Your task to perform on an android device: Search for macbook pro 13 inch on amazon, select the first entry, and add it to the cart. Image 0: 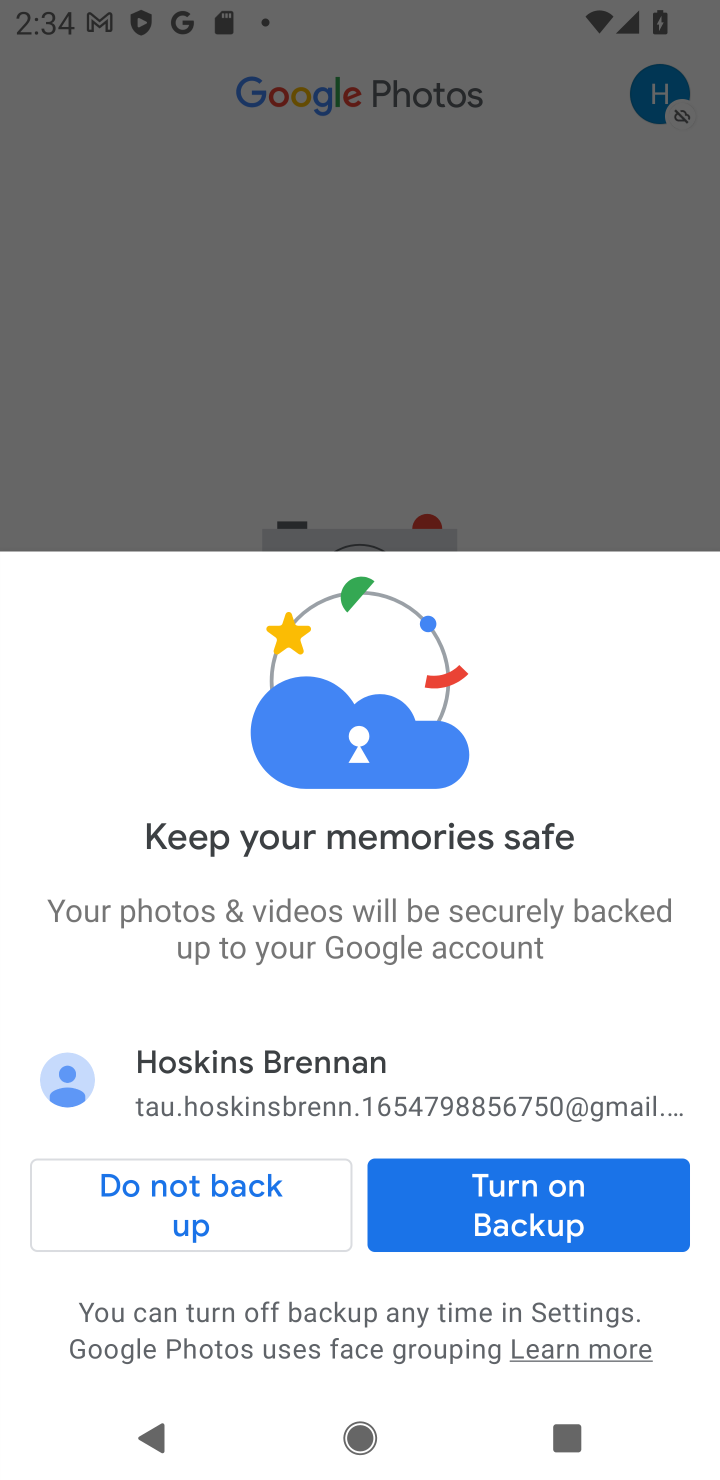
Step 0: press home button
Your task to perform on an android device: Search for macbook pro 13 inch on amazon, select the first entry, and add it to the cart. Image 1: 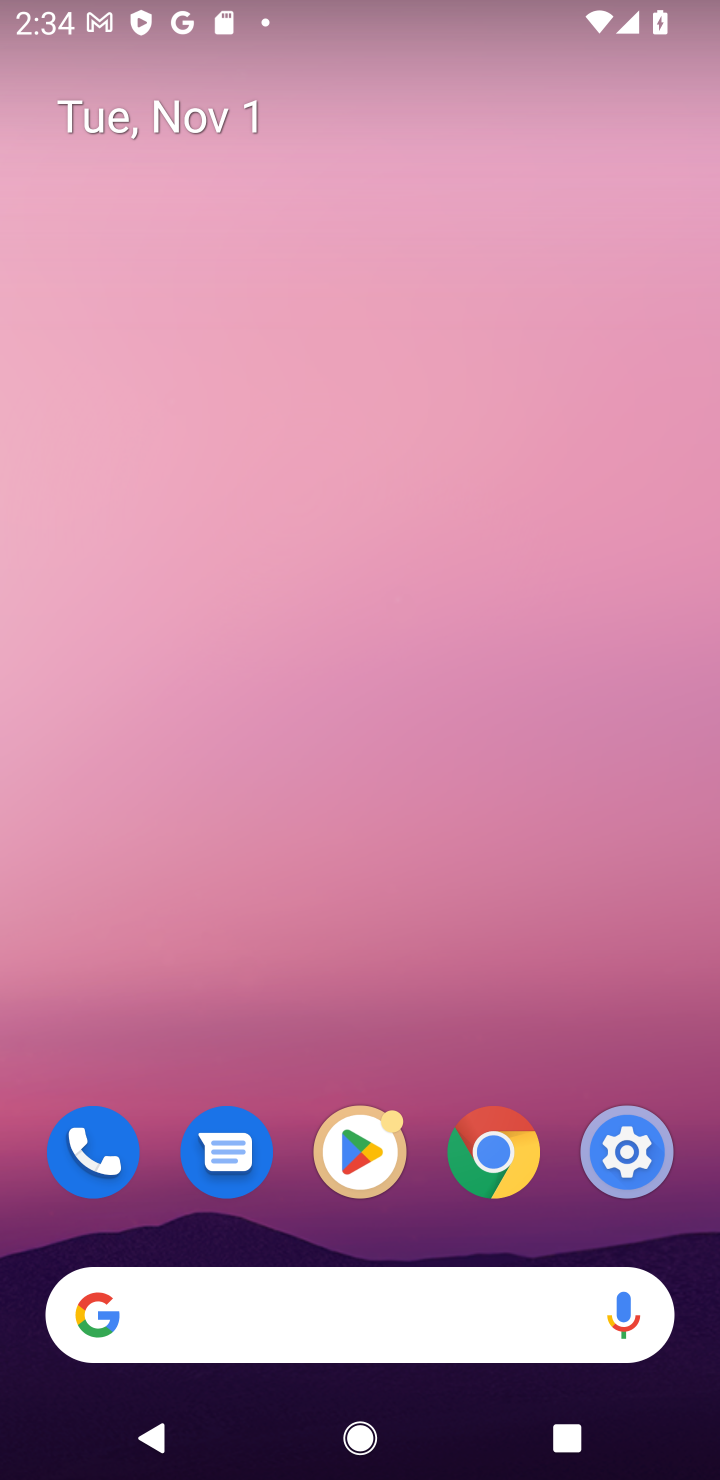
Step 1: drag from (453, 1268) to (608, 113)
Your task to perform on an android device: Search for macbook pro 13 inch on amazon, select the first entry, and add it to the cart. Image 2: 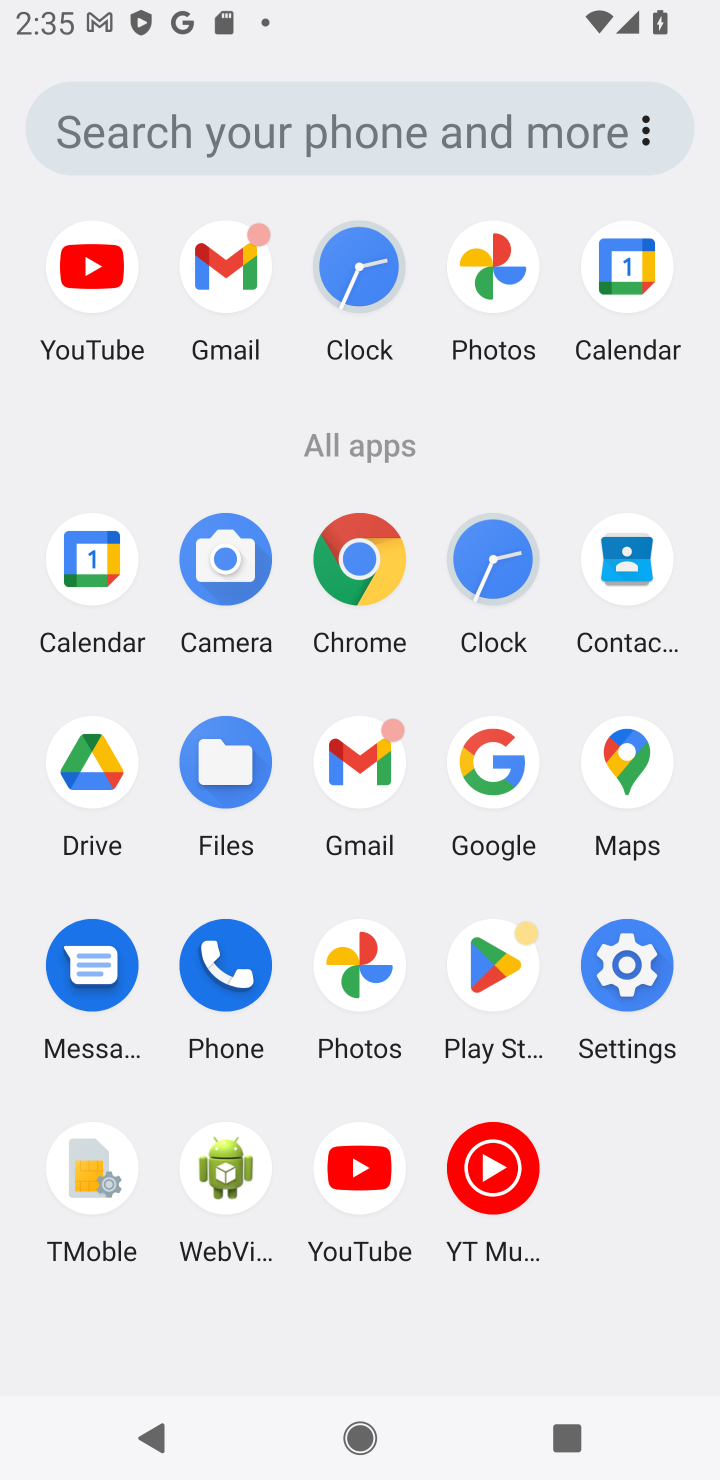
Step 2: click (375, 558)
Your task to perform on an android device: Search for macbook pro 13 inch on amazon, select the first entry, and add it to the cart. Image 3: 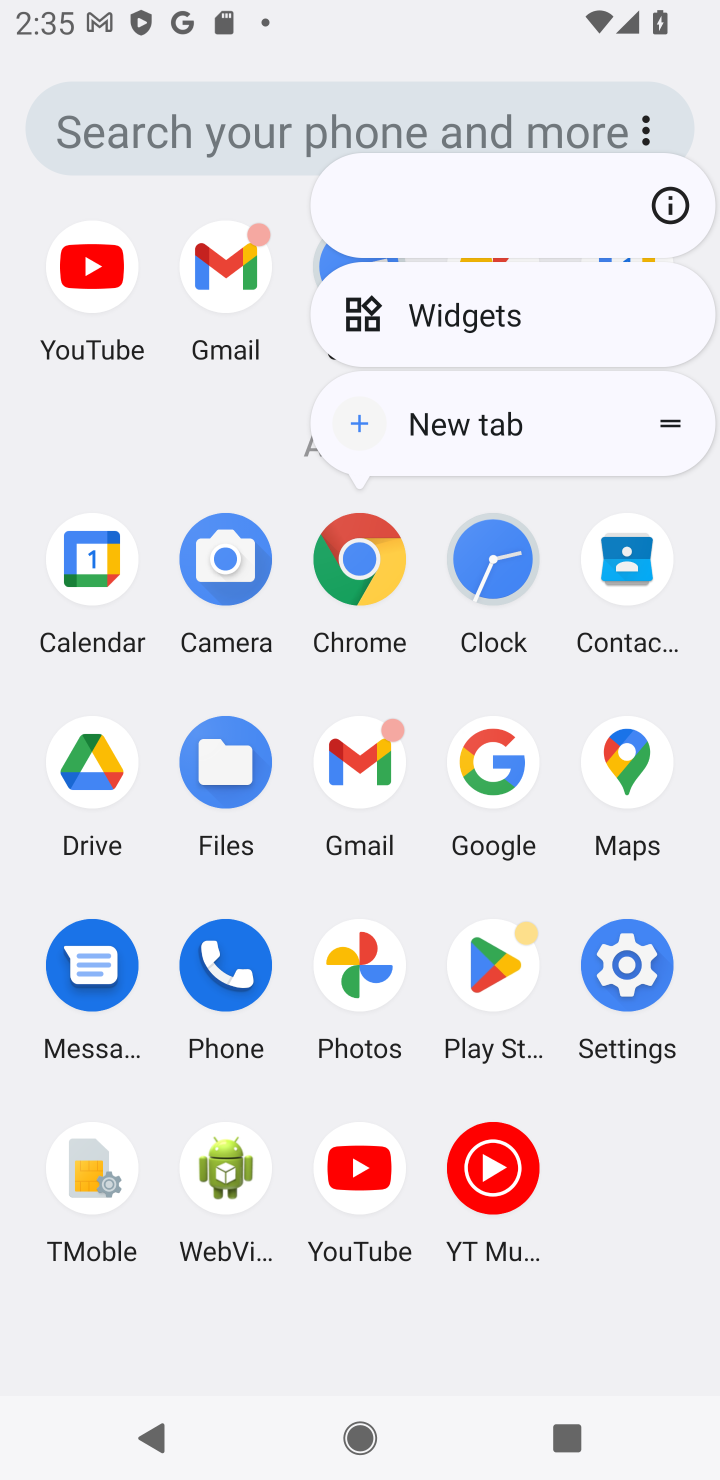
Step 3: click (361, 548)
Your task to perform on an android device: Search for macbook pro 13 inch on amazon, select the first entry, and add it to the cart. Image 4: 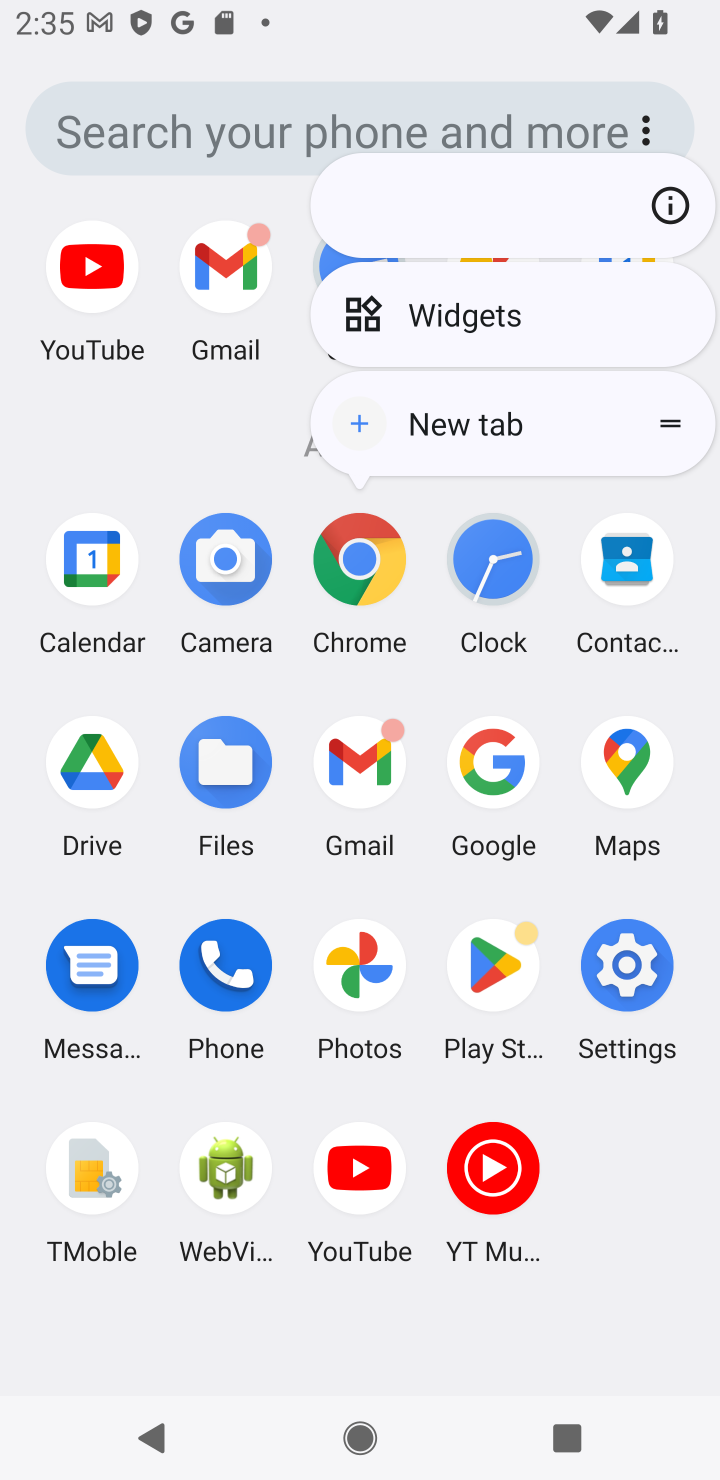
Step 4: click (373, 562)
Your task to perform on an android device: Search for macbook pro 13 inch on amazon, select the first entry, and add it to the cart. Image 5: 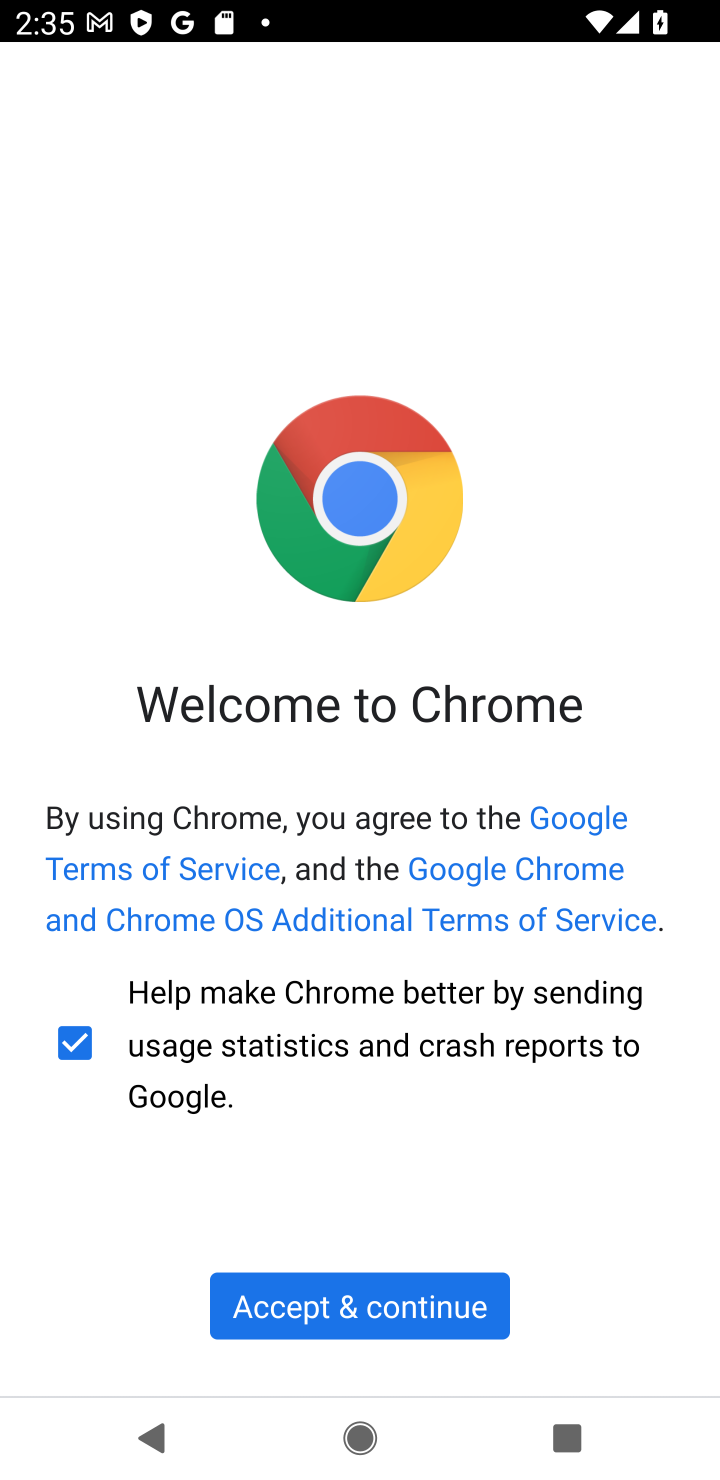
Step 5: click (341, 1292)
Your task to perform on an android device: Search for macbook pro 13 inch on amazon, select the first entry, and add it to the cart. Image 6: 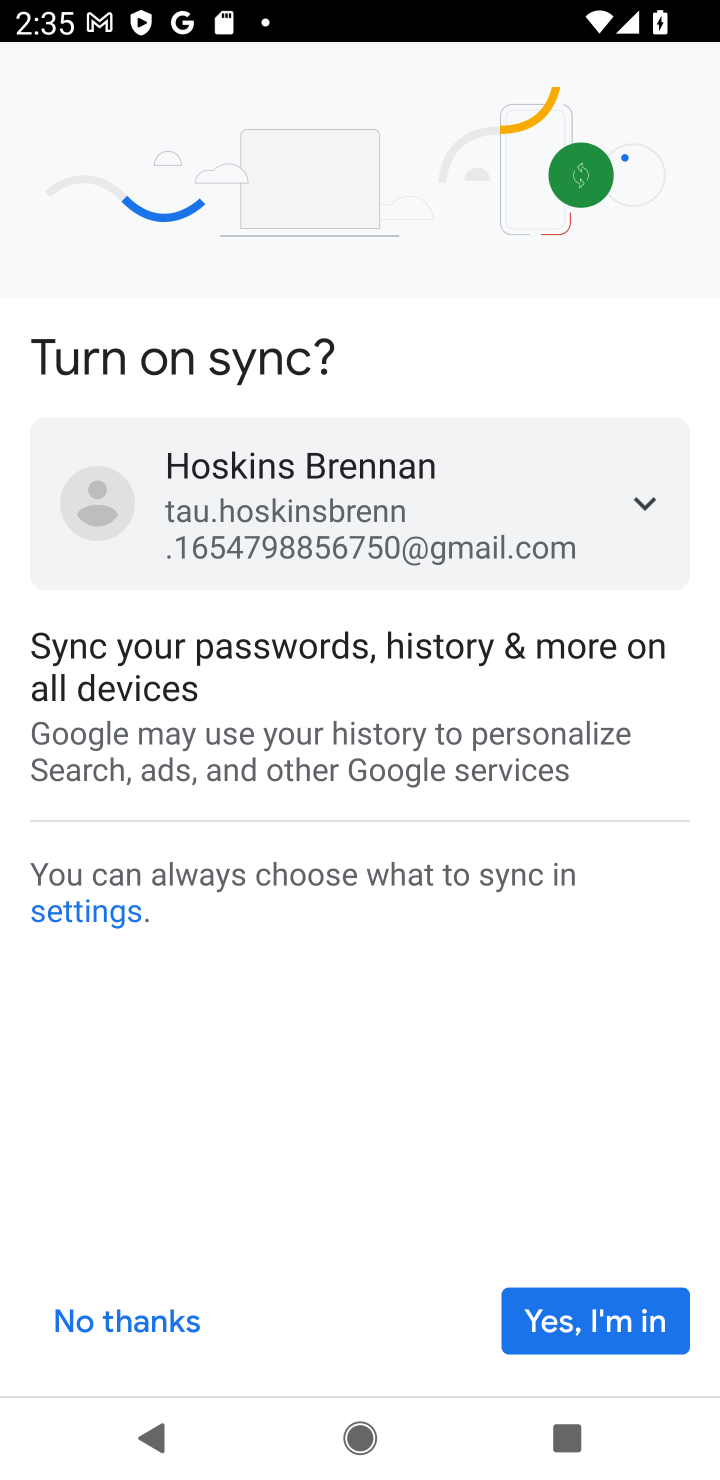
Step 6: click (575, 1333)
Your task to perform on an android device: Search for macbook pro 13 inch on amazon, select the first entry, and add it to the cart. Image 7: 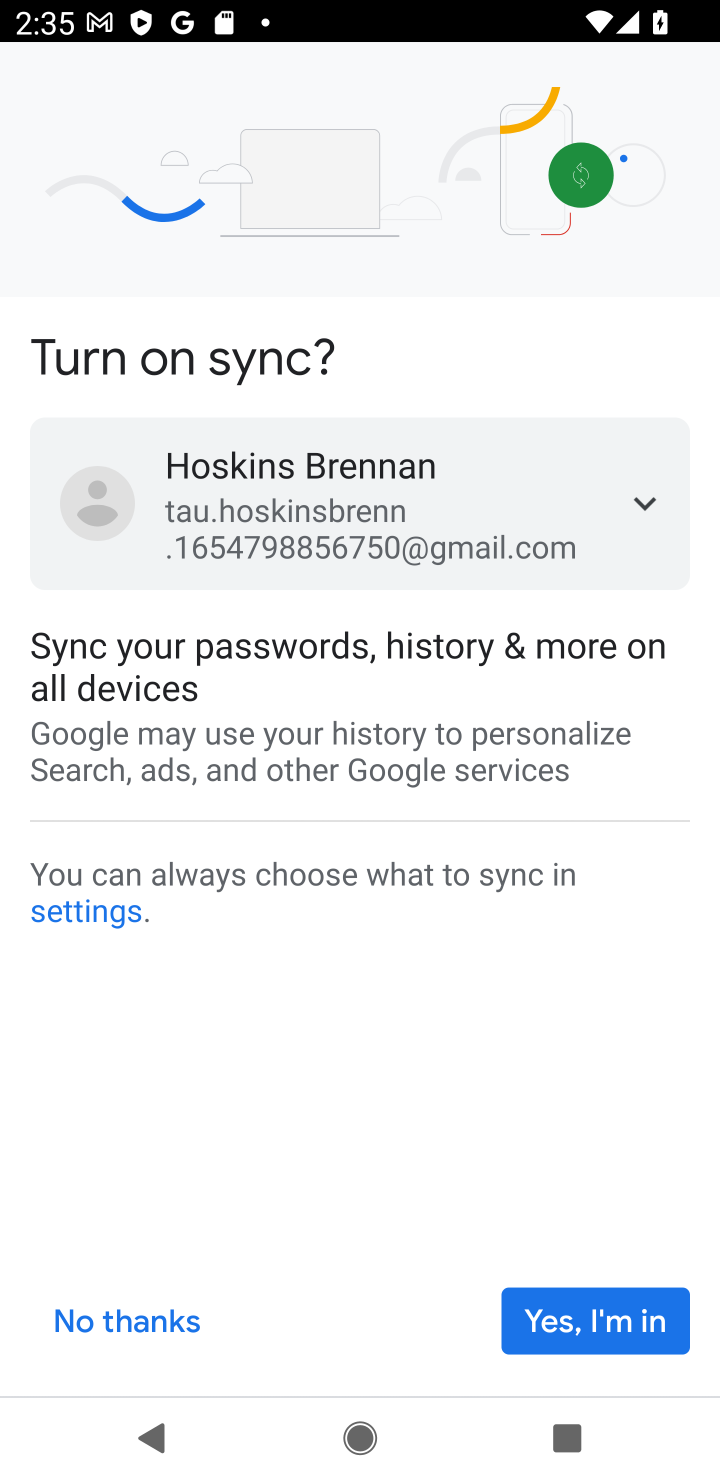
Step 7: click (605, 1314)
Your task to perform on an android device: Search for macbook pro 13 inch on amazon, select the first entry, and add it to the cart. Image 8: 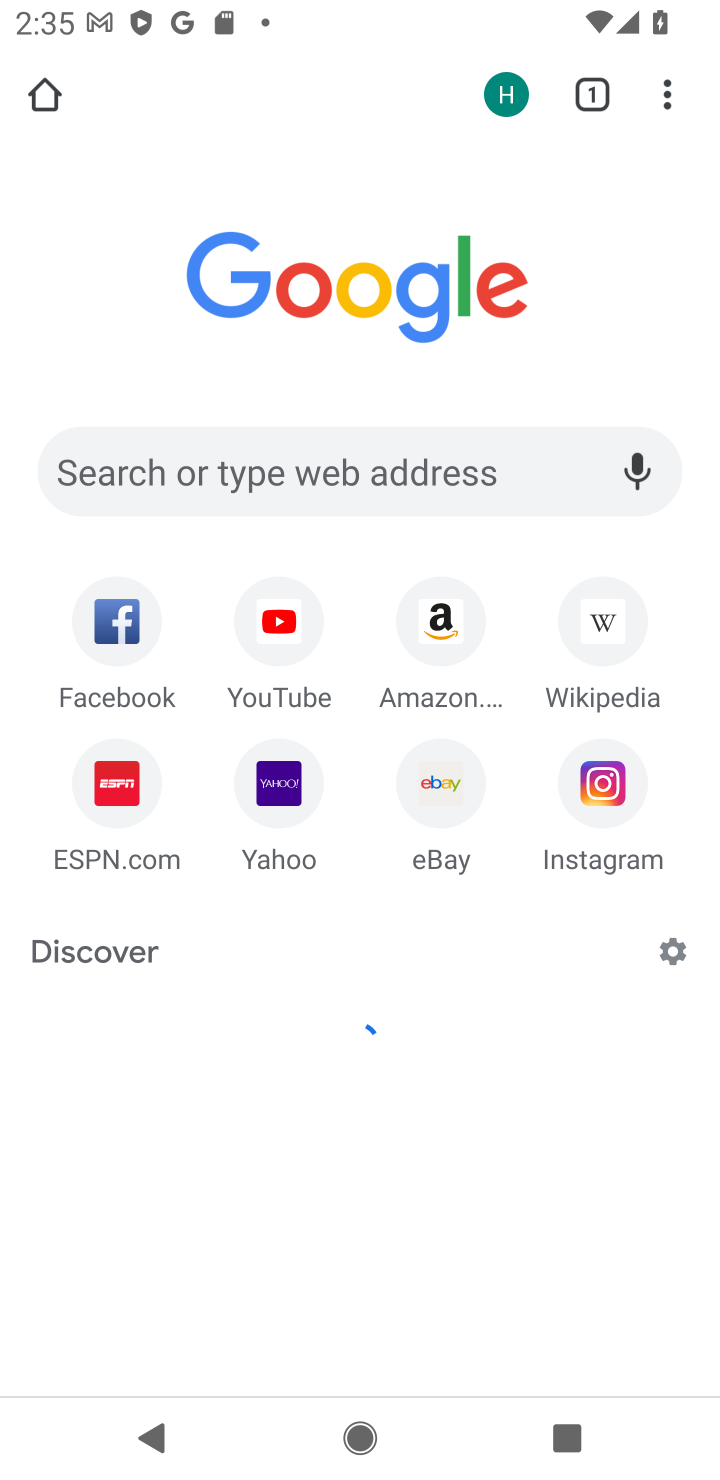
Step 8: click (179, 459)
Your task to perform on an android device: Search for macbook pro 13 inch on amazon, select the first entry, and add it to the cart. Image 9: 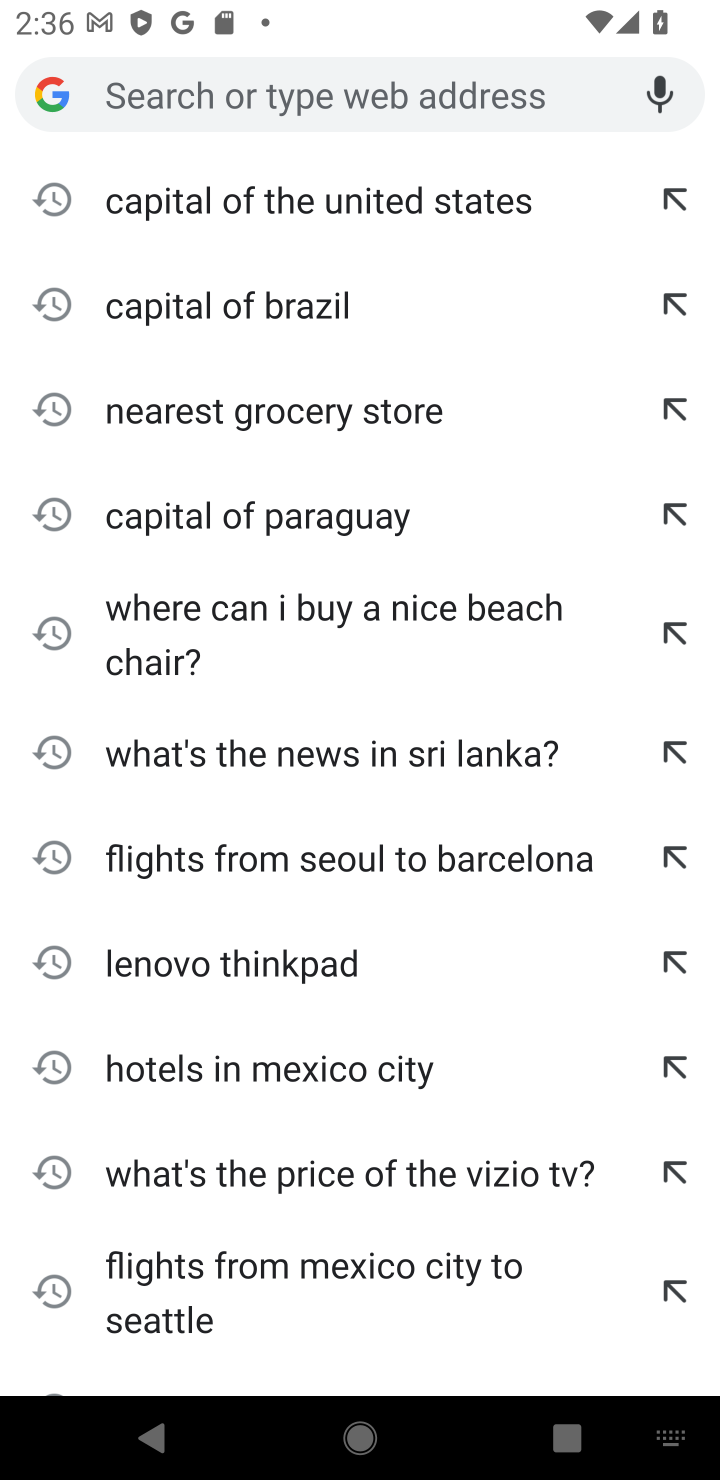
Step 9: type "amazon"
Your task to perform on an android device: Search for macbook pro 13 inch on amazon, select the first entry, and add it to the cart. Image 10: 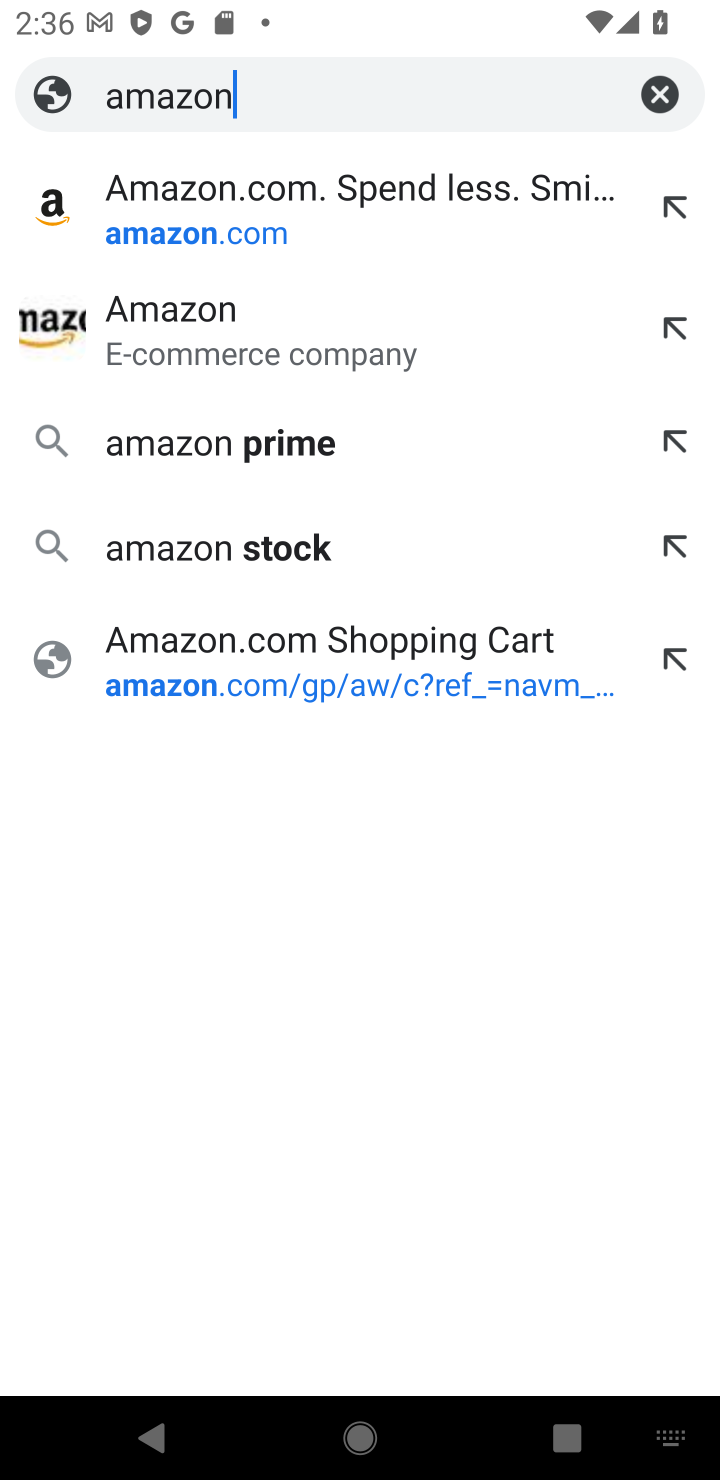
Step 10: click (230, 224)
Your task to perform on an android device: Search for macbook pro 13 inch on amazon, select the first entry, and add it to the cart. Image 11: 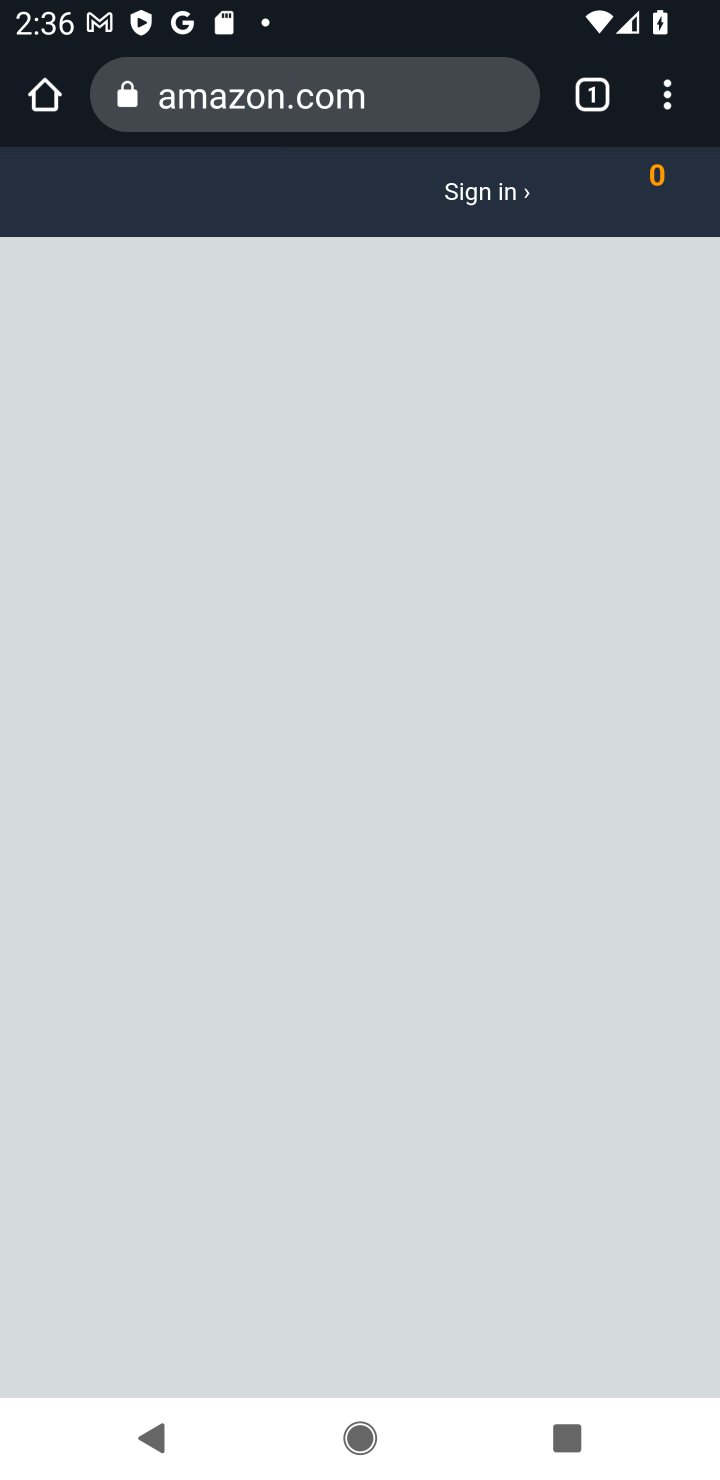
Step 11: drag from (321, 982) to (147, 279)
Your task to perform on an android device: Search for macbook pro 13 inch on amazon, select the first entry, and add it to the cart. Image 12: 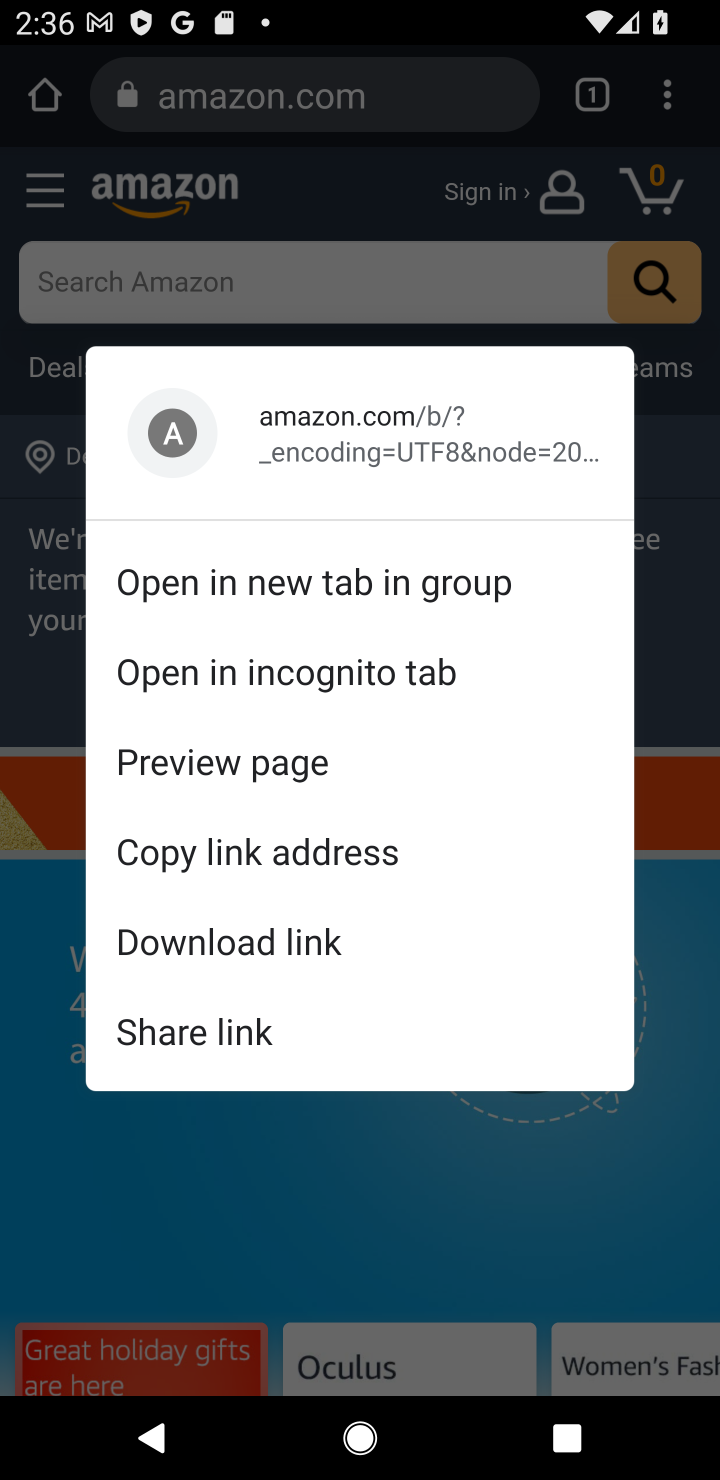
Step 12: click (151, 271)
Your task to perform on an android device: Search for macbook pro 13 inch on amazon, select the first entry, and add it to the cart. Image 13: 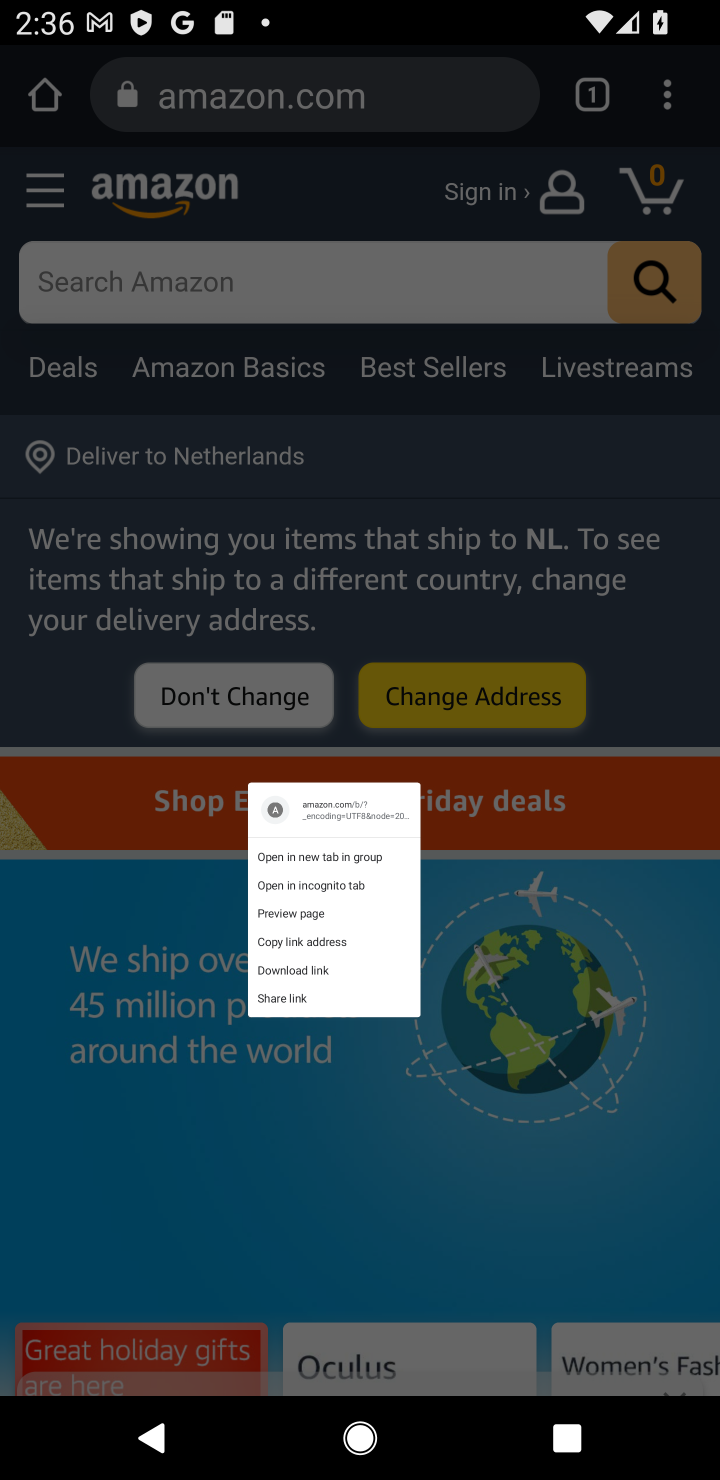
Step 13: click (143, 313)
Your task to perform on an android device: Search for macbook pro 13 inch on amazon, select the first entry, and add it to the cart. Image 14: 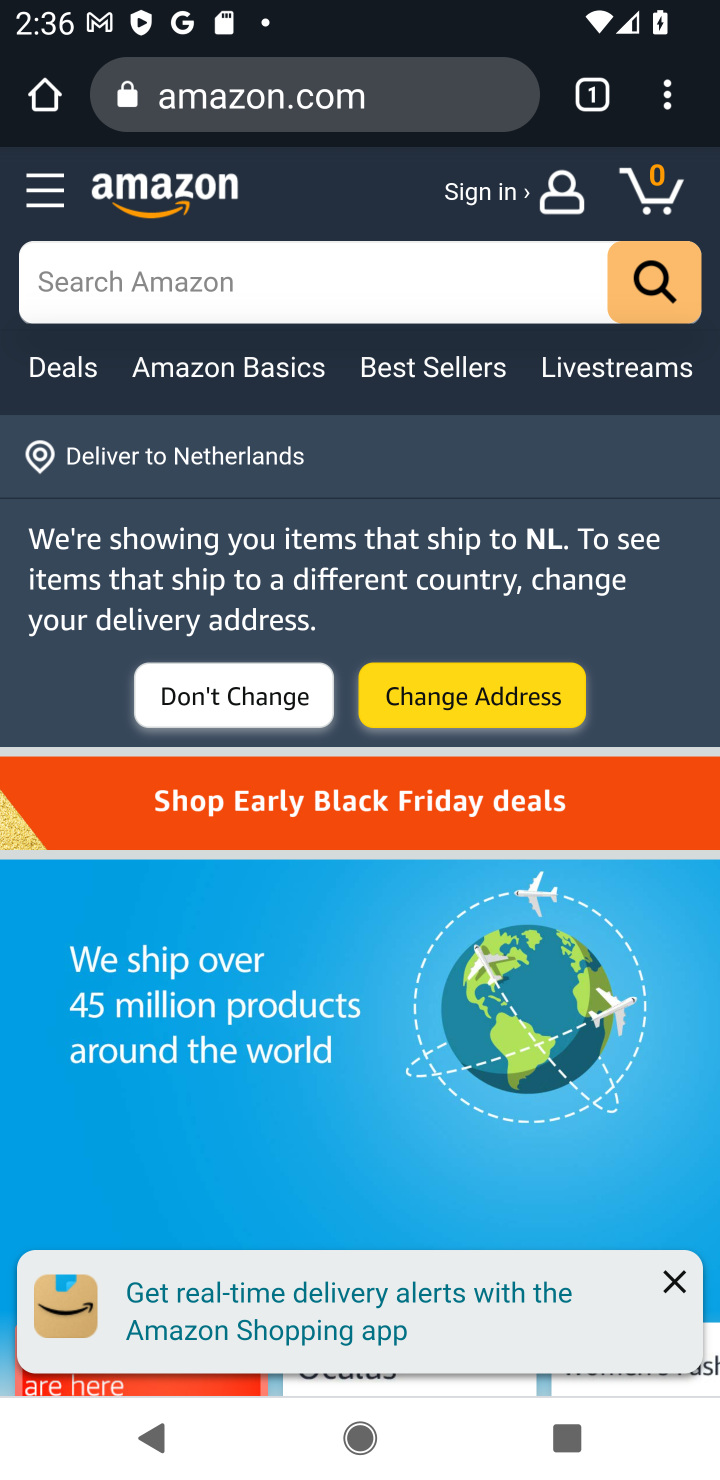
Step 14: click (100, 260)
Your task to perform on an android device: Search for macbook pro 13 inch on amazon, select the first entry, and add it to the cart. Image 15: 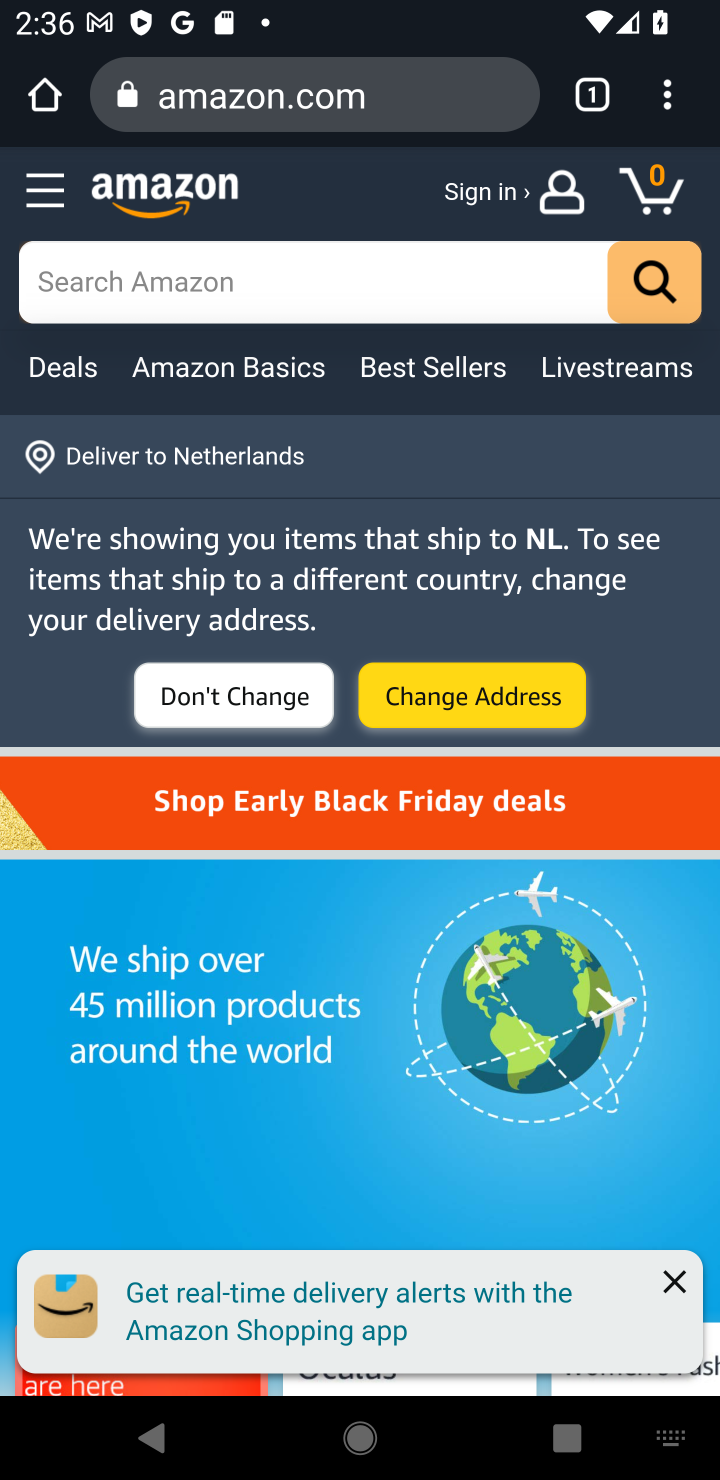
Step 15: type " macbook pro 13"
Your task to perform on an android device: Search for macbook pro 13 inch on amazon, select the first entry, and add it to the cart. Image 16: 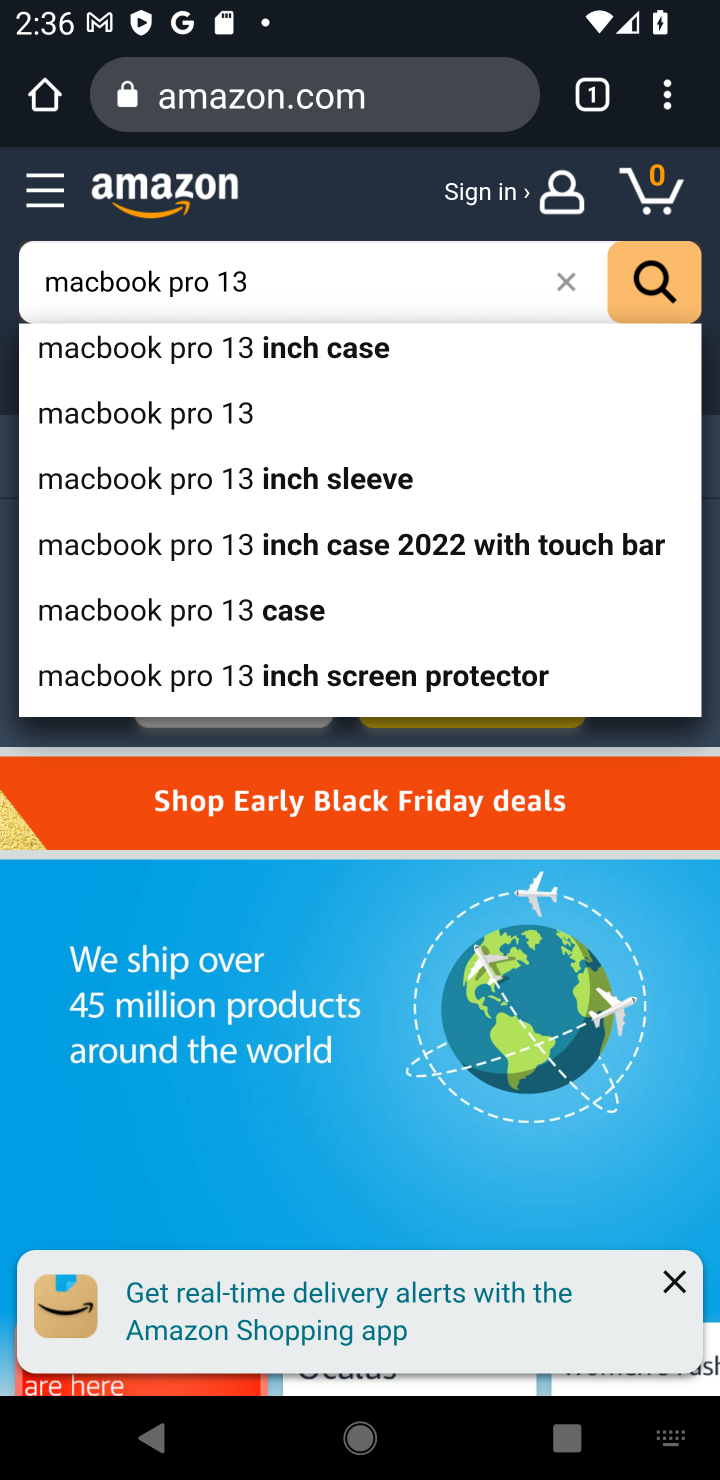
Step 16: click (190, 410)
Your task to perform on an android device: Search for macbook pro 13 inch on amazon, select the first entry, and add it to the cart. Image 17: 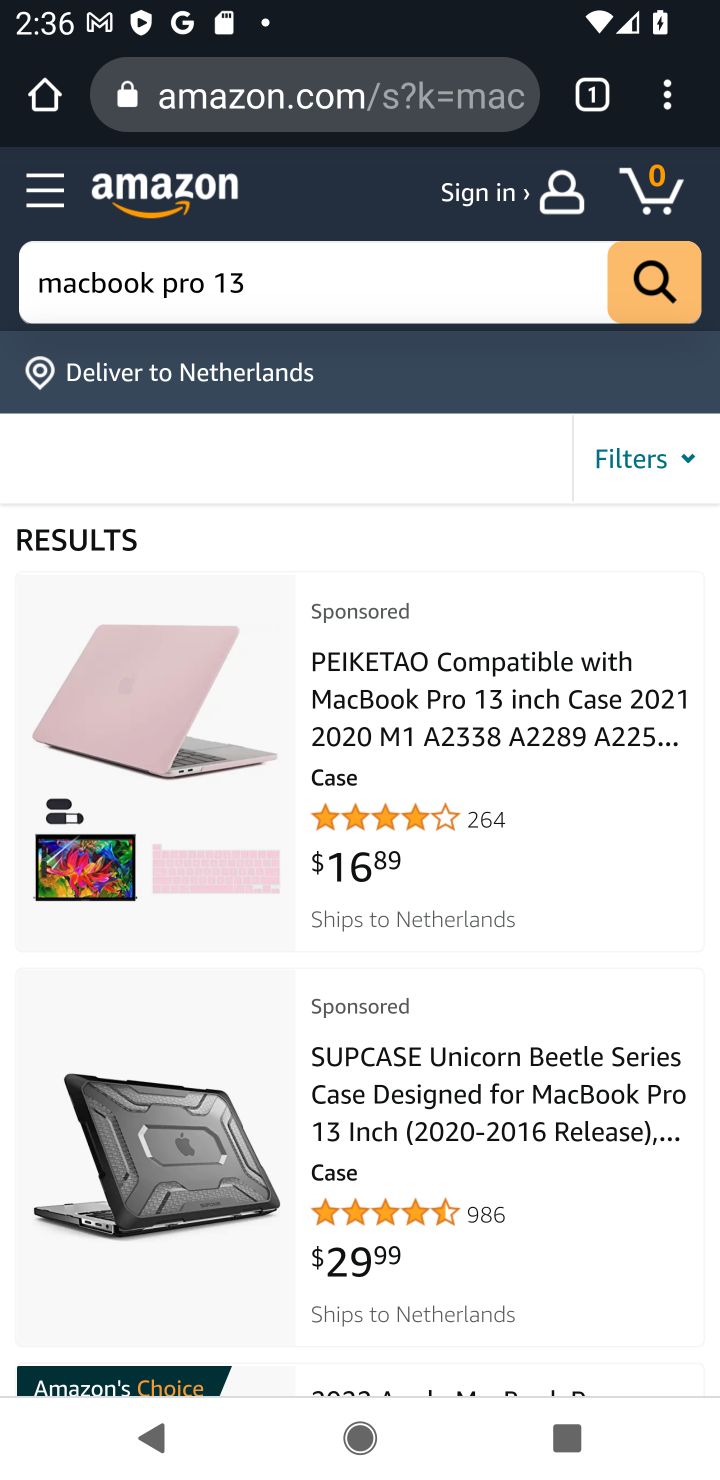
Step 17: click (254, 675)
Your task to perform on an android device: Search for macbook pro 13 inch on amazon, select the first entry, and add it to the cart. Image 18: 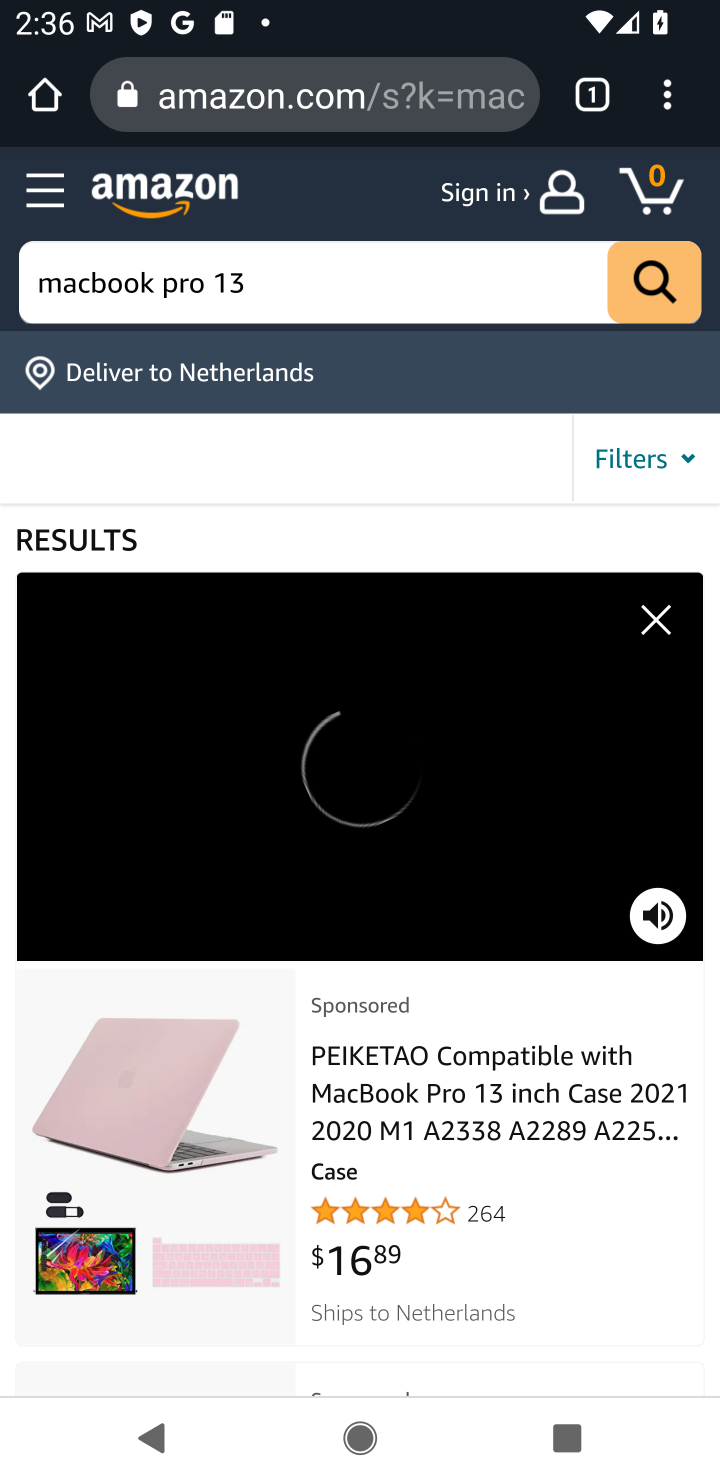
Step 18: click (655, 609)
Your task to perform on an android device: Search for macbook pro 13 inch on amazon, select the first entry, and add it to the cart. Image 19: 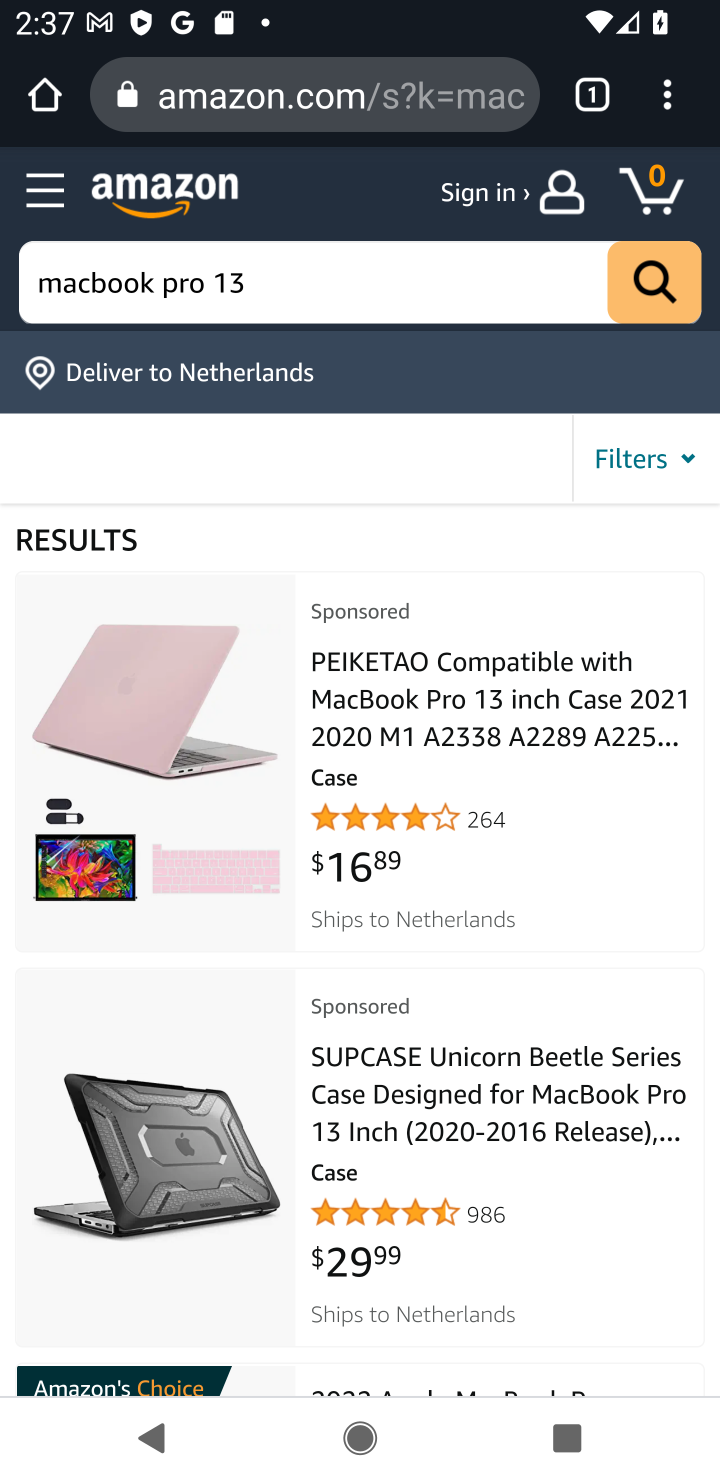
Step 19: click (490, 1097)
Your task to perform on an android device: Search for macbook pro 13 inch on amazon, select the first entry, and add it to the cart. Image 20: 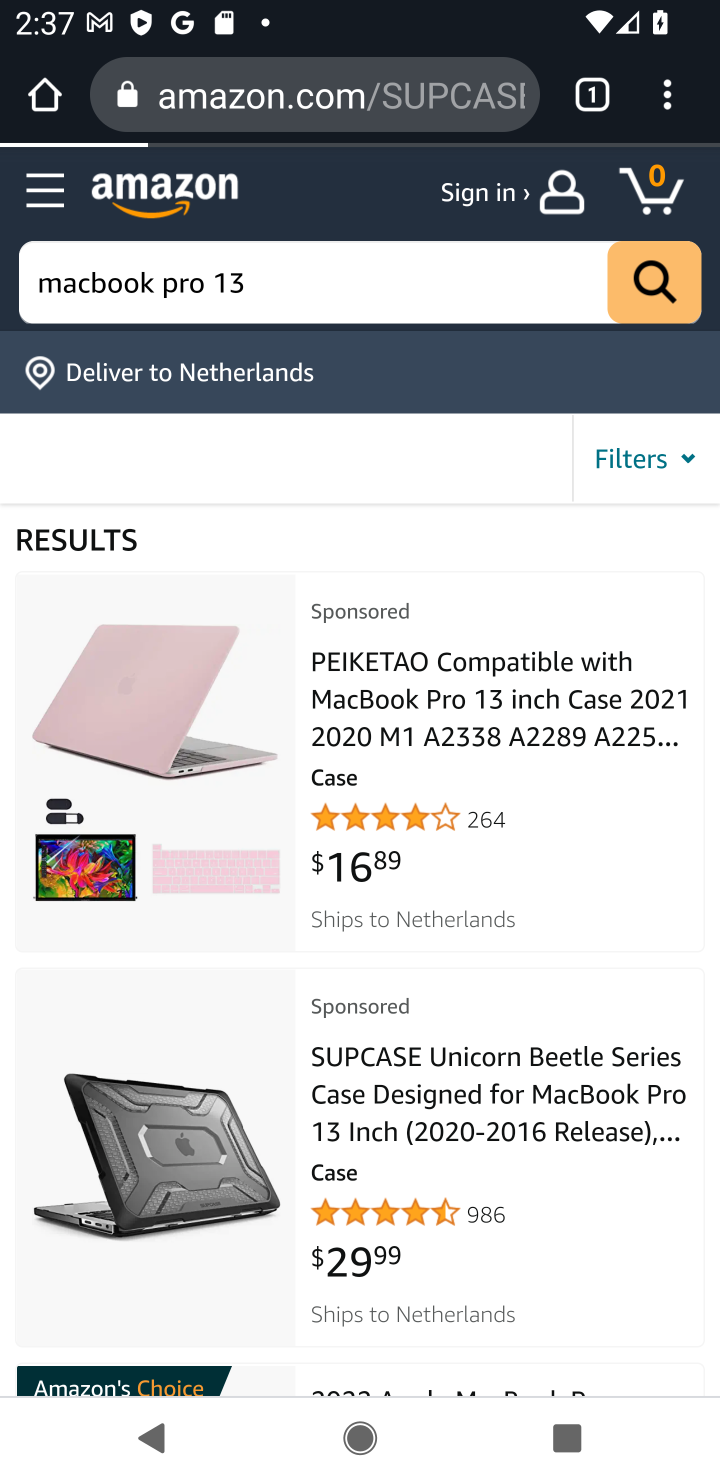
Step 20: click (428, 1112)
Your task to perform on an android device: Search for macbook pro 13 inch on amazon, select the first entry, and add it to the cart. Image 21: 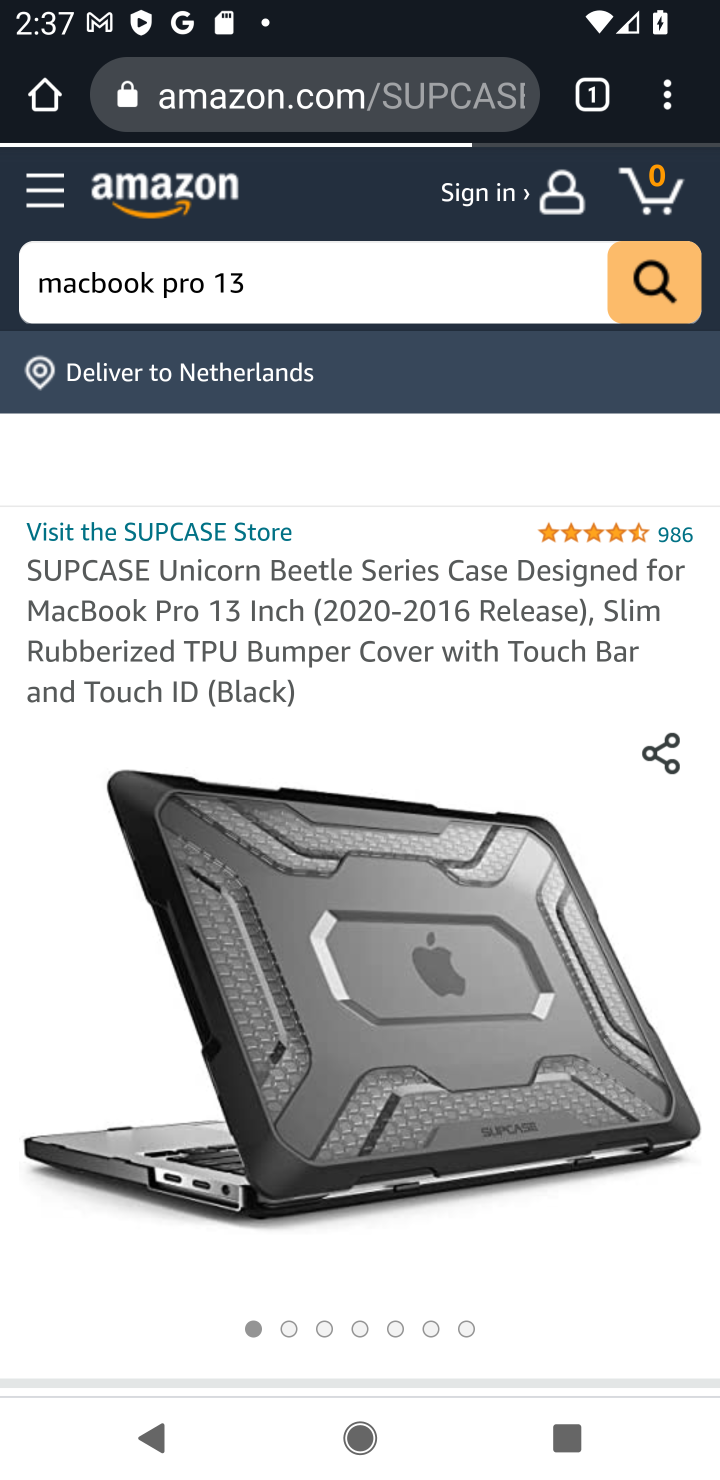
Step 21: drag from (535, 1052) to (506, 500)
Your task to perform on an android device: Search for macbook pro 13 inch on amazon, select the first entry, and add it to the cart. Image 22: 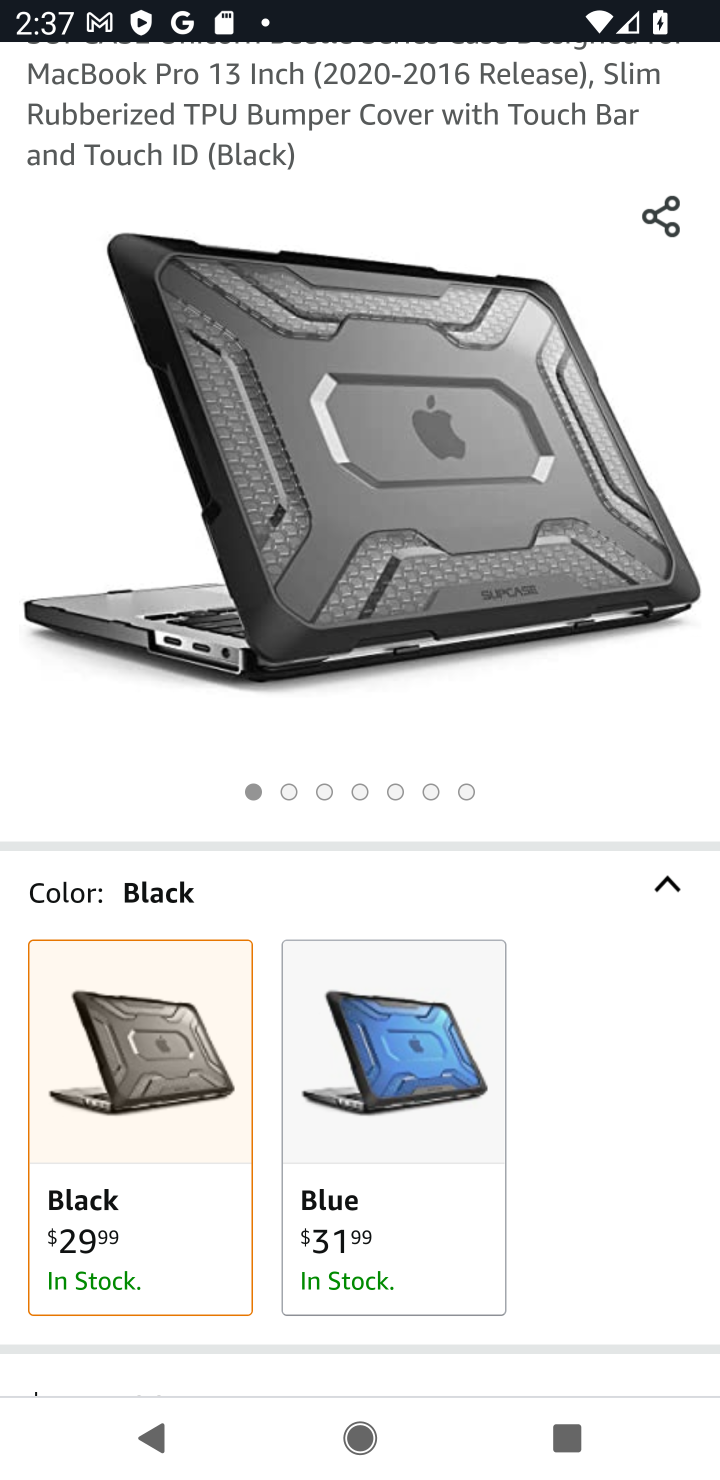
Step 22: drag from (429, 1134) to (450, 504)
Your task to perform on an android device: Search for macbook pro 13 inch on amazon, select the first entry, and add it to the cart. Image 23: 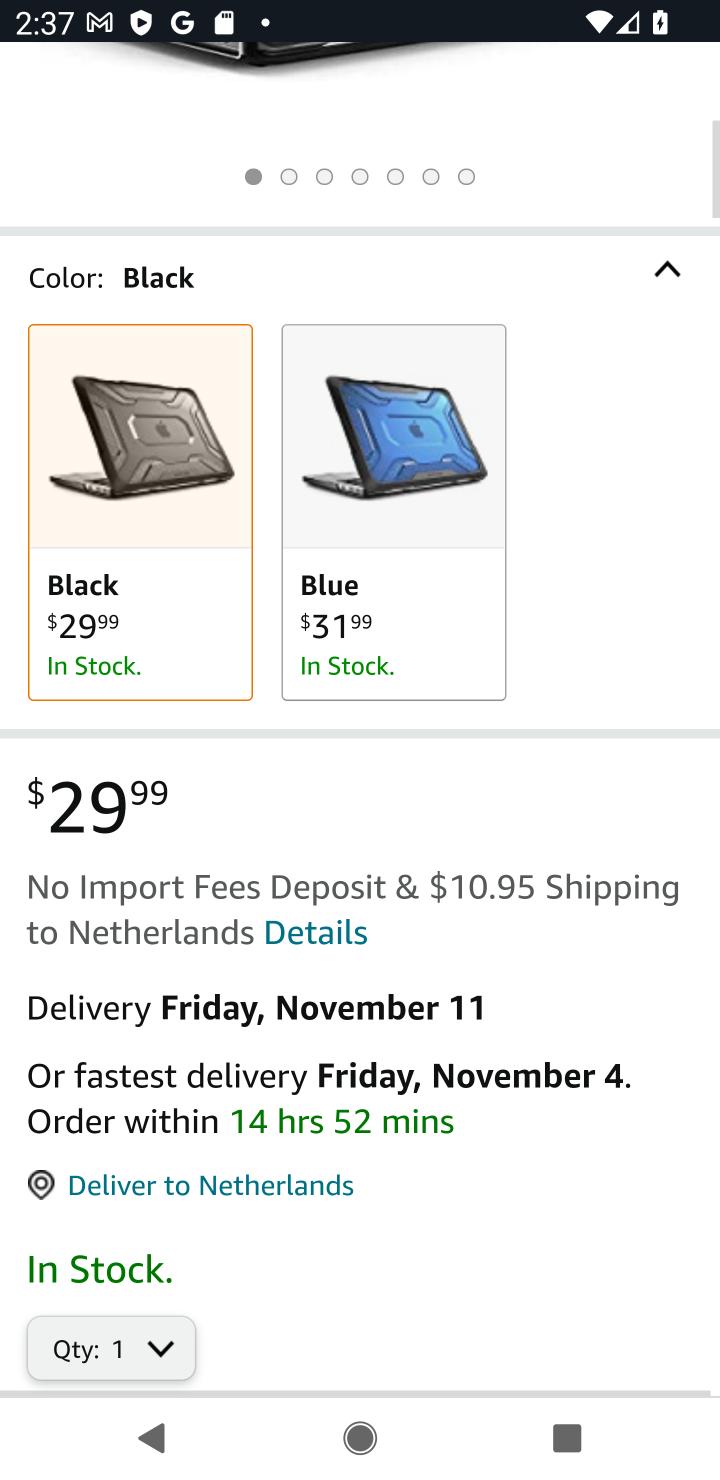
Step 23: drag from (485, 1189) to (544, 471)
Your task to perform on an android device: Search for macbook pro 13 inch on amazon, select the first entry, and add it to the cart. Image 24: 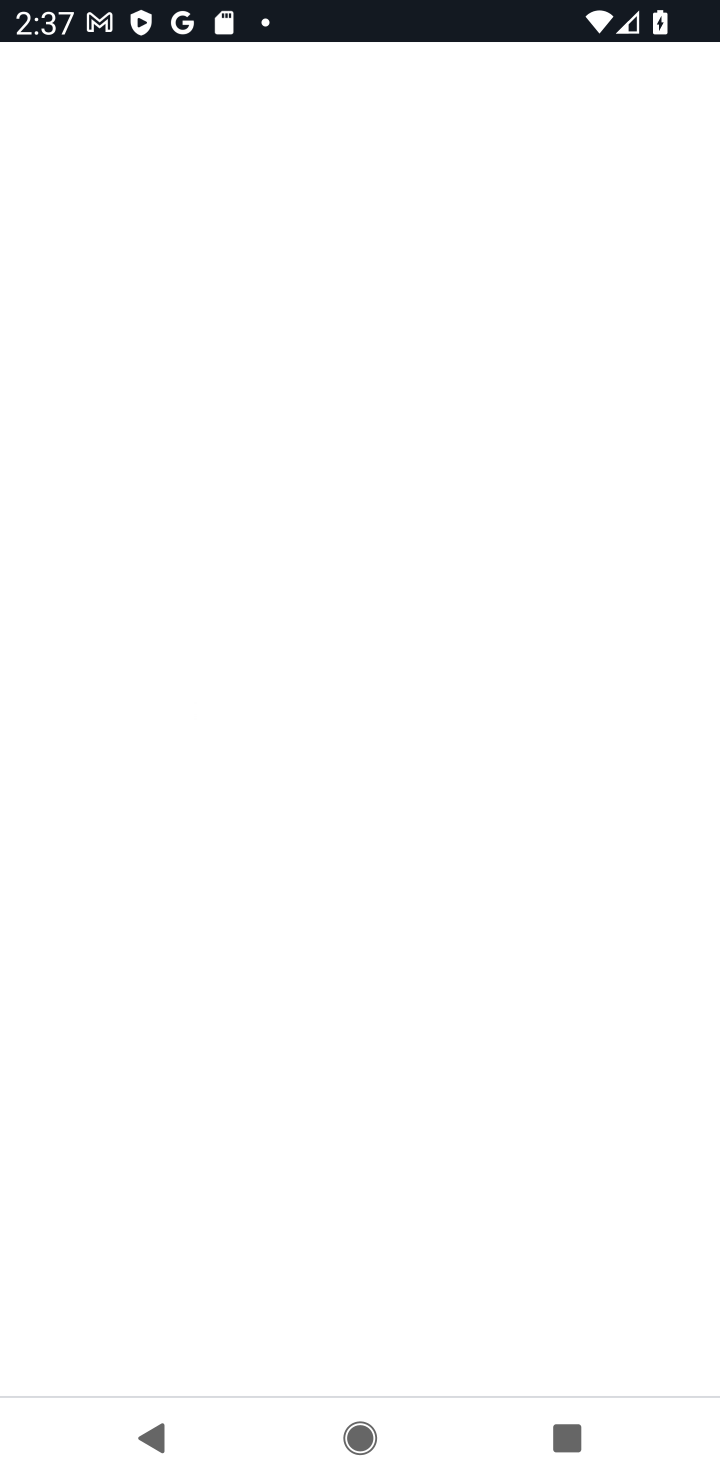
Step 24: click (377, 761)
Your task to perform on an android device: Search for macbook pro 13 inch on amazon, select the first entry, and add it to the cart. Image 25: 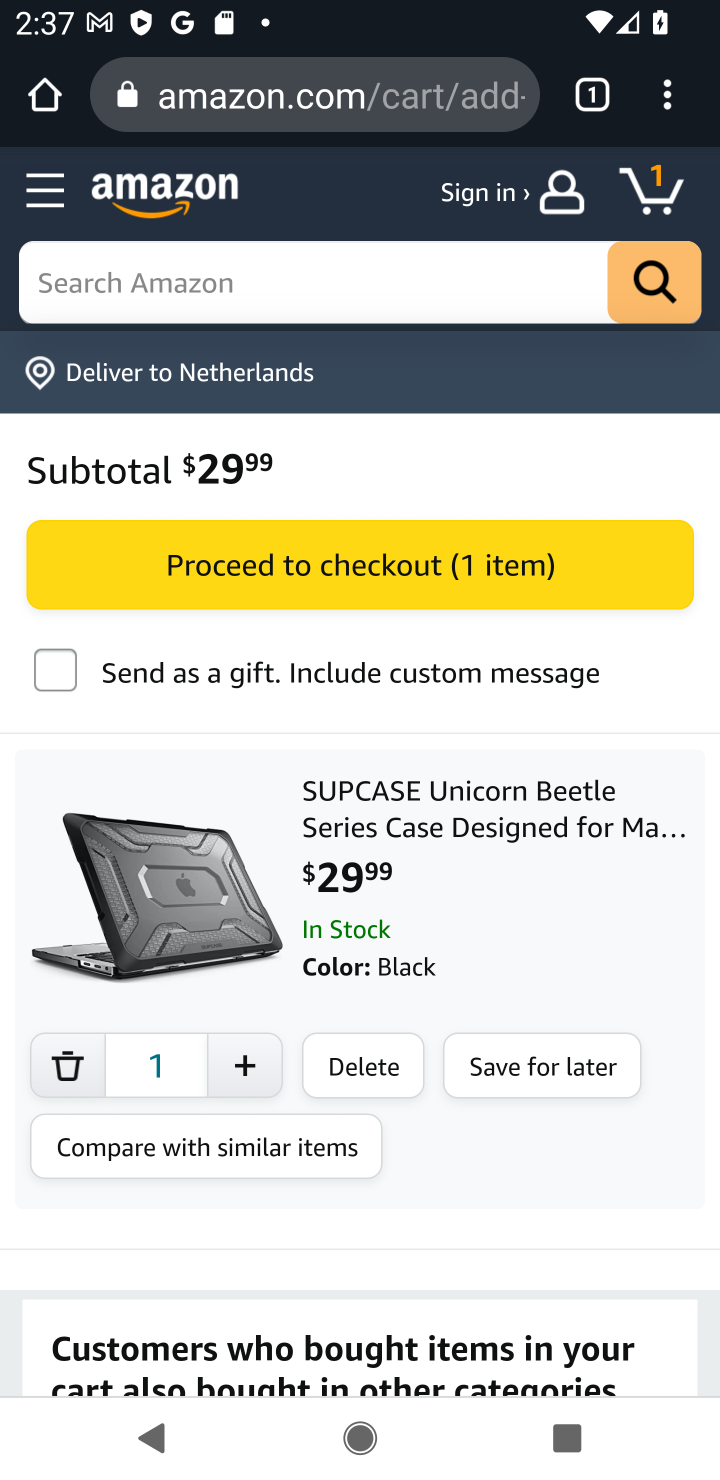
Step 25: task complete